Your task to perform on an android device: What is the news today? Image 0: 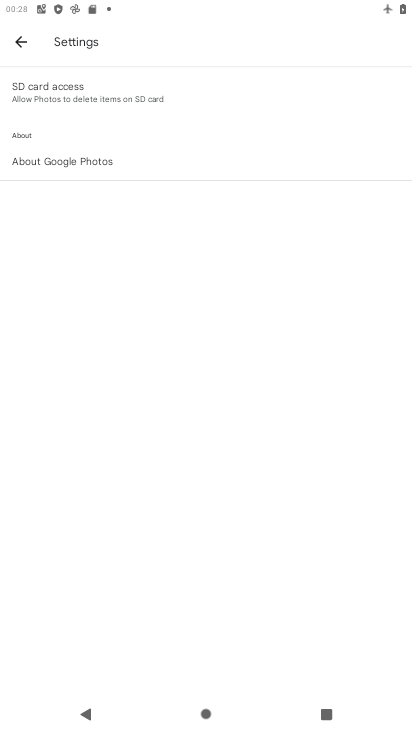
Step 0: press home button
Your task to perform on an android device: What is the news today? Image 1: 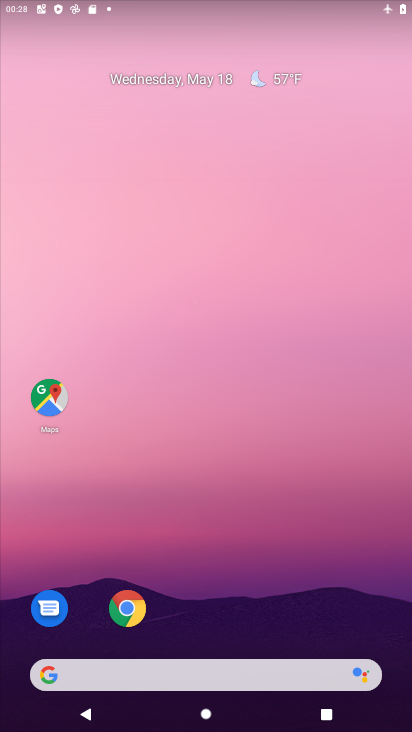
Step 1: drag from (12, 251) to (399, 385)
Your task to perform on an android device: What is the news today? Image 2: 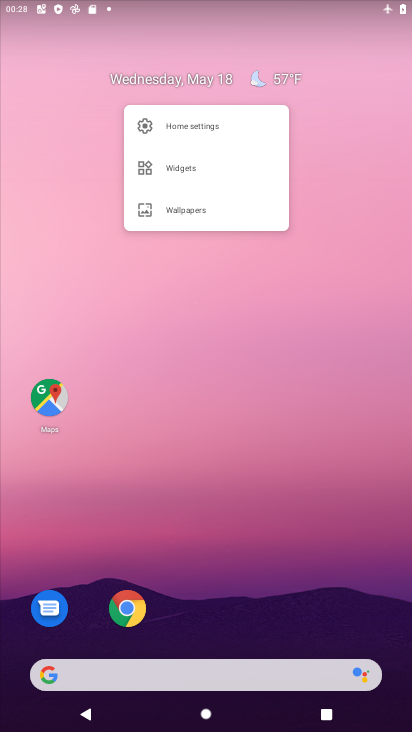
Step 2: click (215, 306)
Your task to perform on an android device: What is the news today? Image 3: 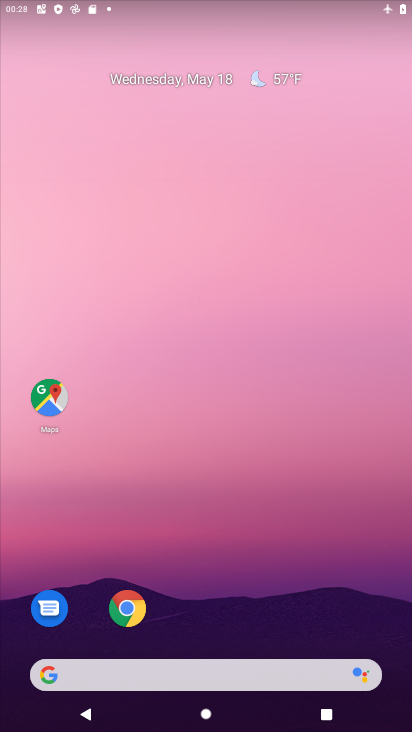
Step 3: task complete